Your task to perform on an android device: Open battery settings Image 0: 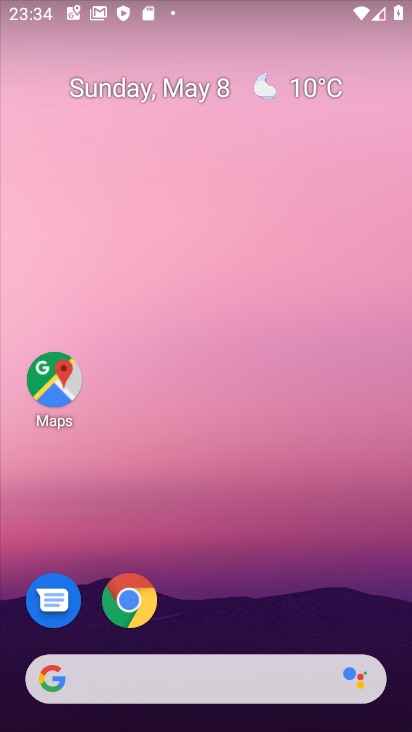
Step 0: drag from (242, 634) to (245, 117)
Your task to perform on an android device: Open battery settings Image 1: 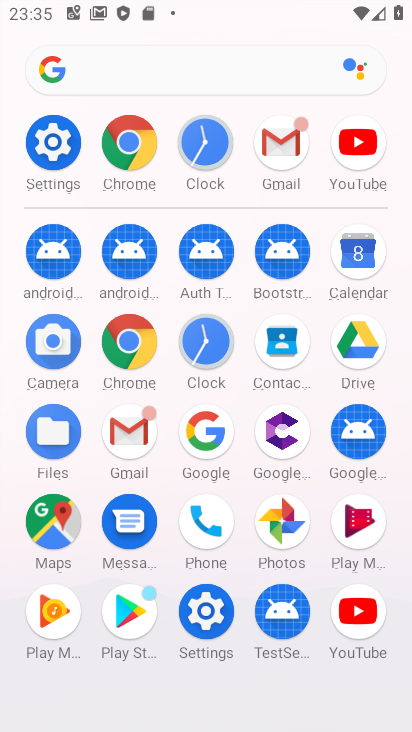
Step 1: click (60, 156)
Your task to perform on an android device: Open battery settings Image 2: 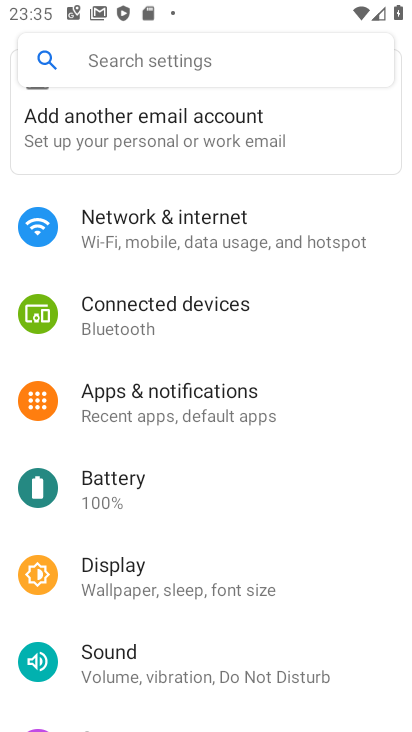
Step 2: click (290, 513)
Your task to perform on an android device: Open battery settings Image 3: 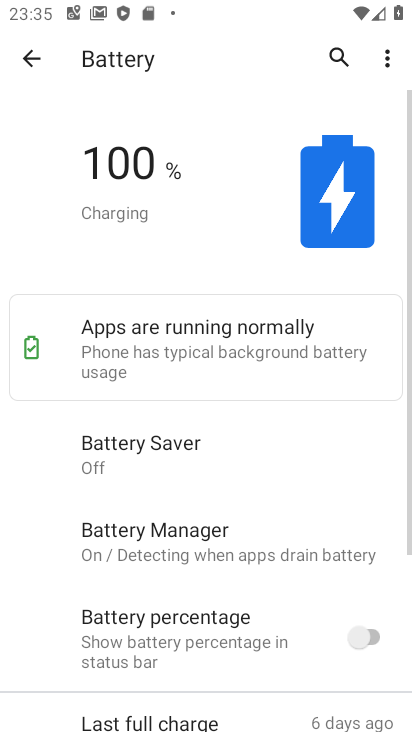
Step 3: click (375, 59)
Your task to perform on an android device: Open battery settings Image 4: 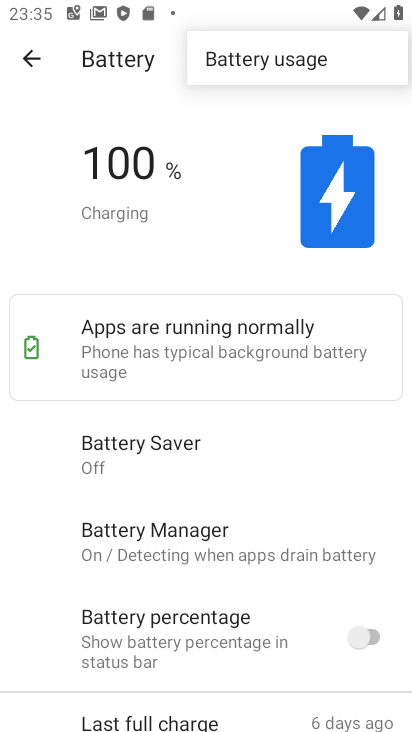
Step 4: click (375, 59)
Your task to perform on an android device: Open battery settings Image 5: 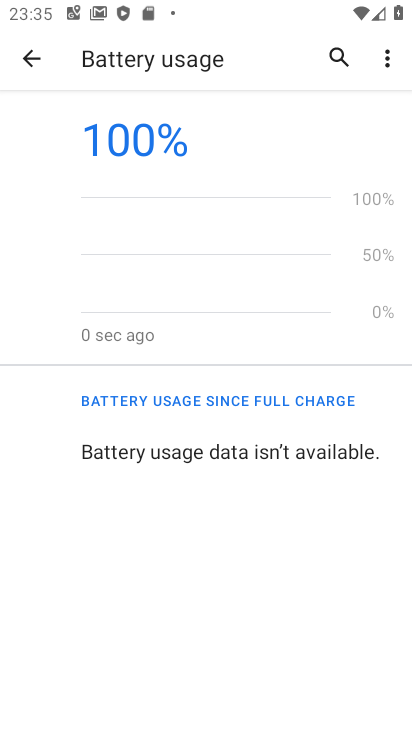
Step 5: task complete